Your task to perform on an android device: Go to notification settings Image 0: 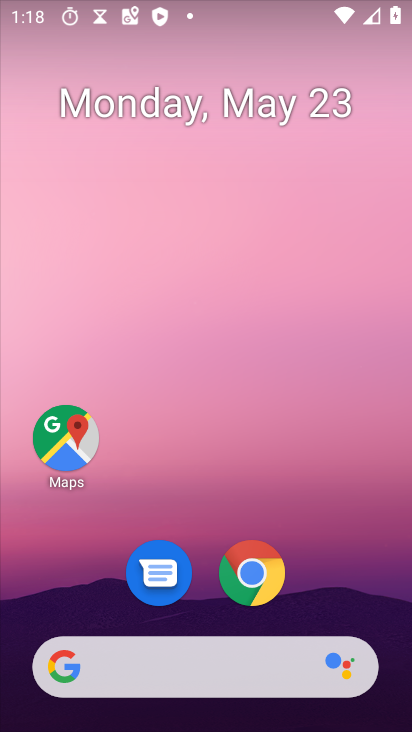
Step 0: press home button
Your task to perform on an android device: Go to notification settings Image 1: 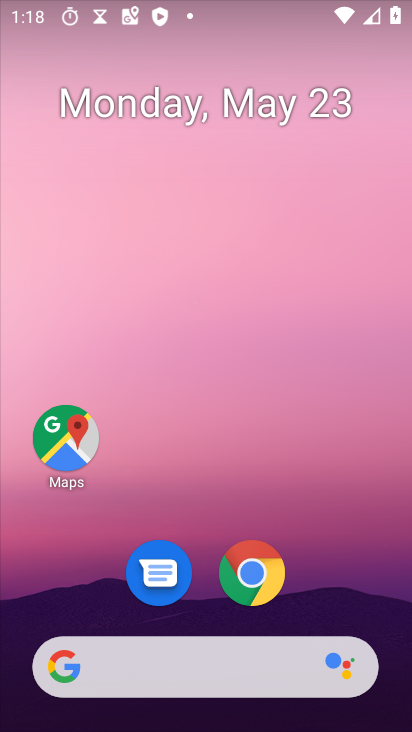
Step 1: drag from (184, 656) to (288, 159)
Your task to perform on an android device: Go to notification settings Image 2: 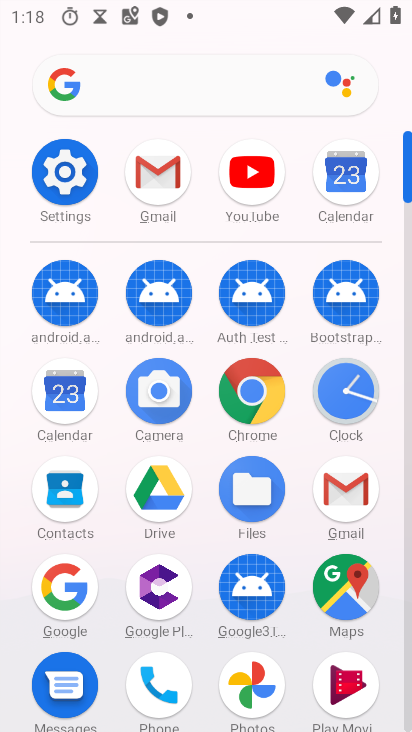
Step 2: click (82, 176)
Your task to perform on an android device: Go to notification settings Image 3: 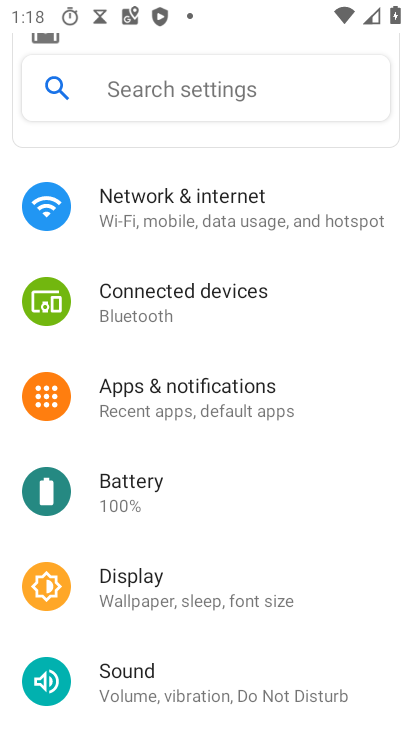
Step 3: click (228, 397)
Your task to perform on an android device: Go to notification settings Image 4: 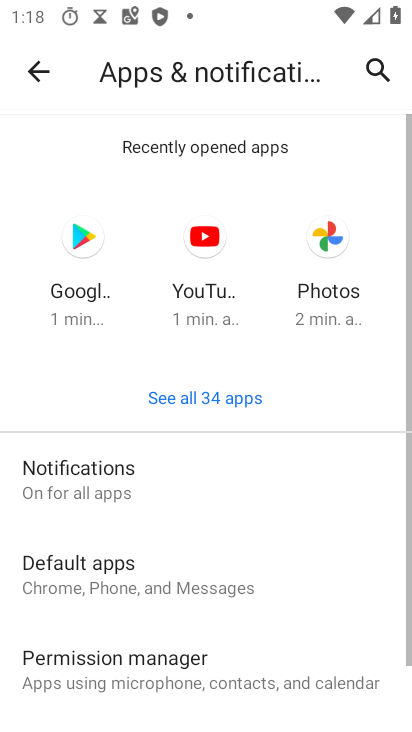
Step 4: click (112, 482)
Your task to perform on an android device: Go to notification settings Image 5: 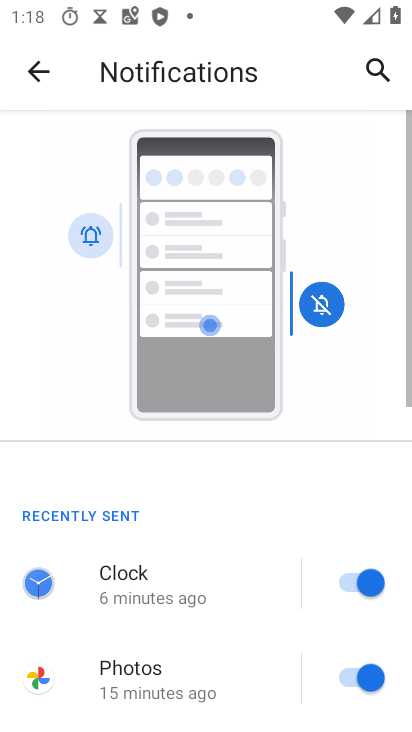
Step 5: task complete